Your task to perform on an android device: Go to CNN.com Image 0: 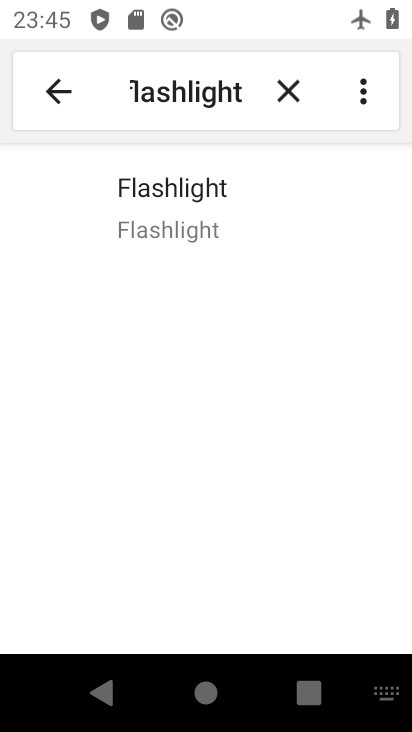
Step 0: click (285, 100)
Your task to perform on an android device: Go to CNN.com Image 1: 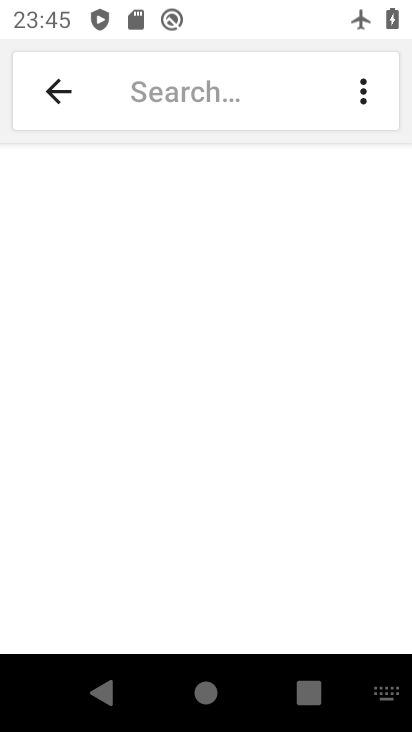
Step 1: click (163, 95)
Your task to perform on an android device: Go to CNN.com Image 2: 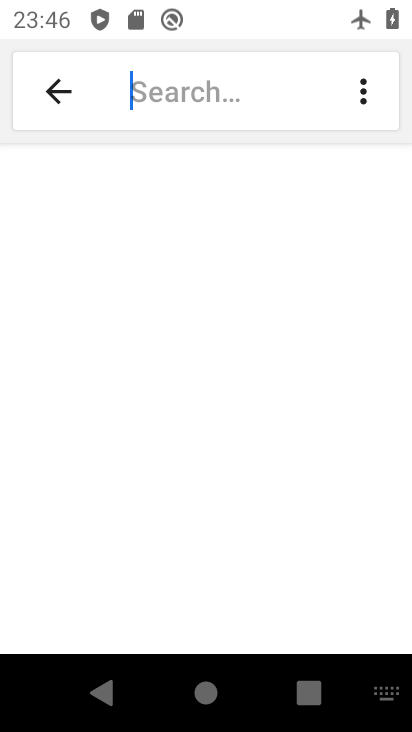
Step 2: type "cnn.com"
Your task to perform on an android device: Go to CNN.com Image 3: 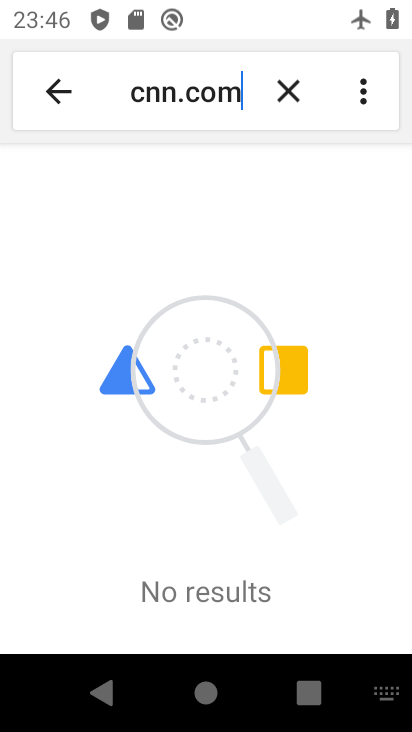
Step 3: task complete